Your task to perform on an android device: toggle sleep mode Image 0: 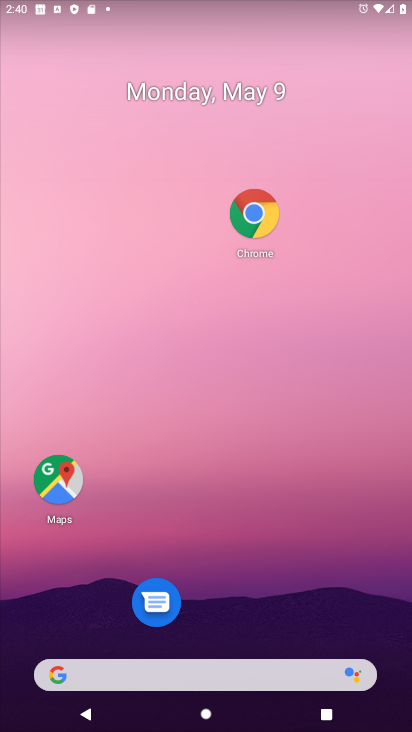
Step 0: drag from (259, 581) to (316, 201)
Your task to perform on an android device: toggle sleep mode Image 1: 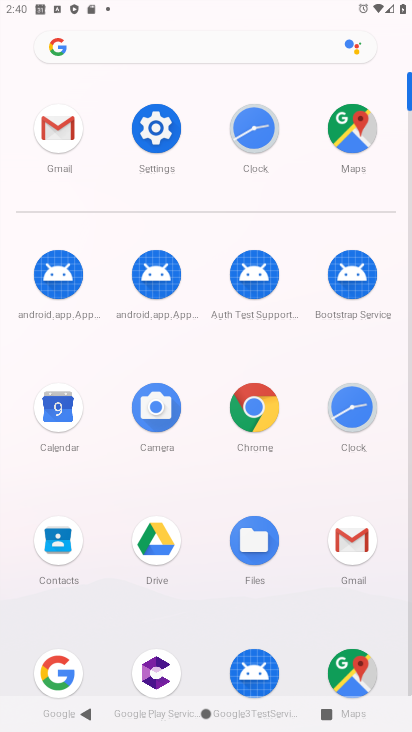
Step 1: click (166, 142)
Your task to perform on an android device: toggle sleep mode Image 2: 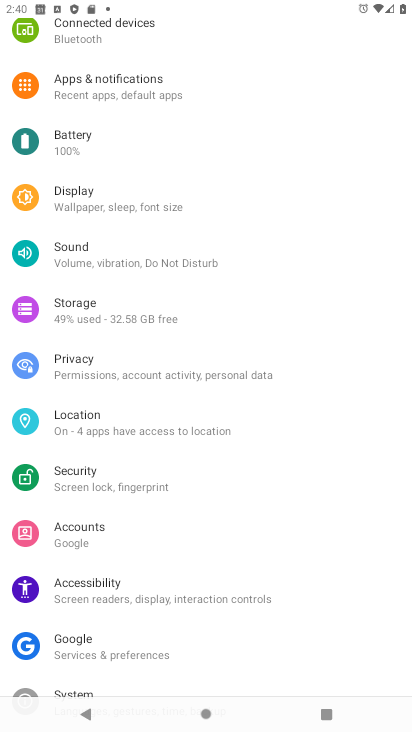
Step 2: click (185, 187)
Your task to perform on an android device: toggle sleep mode Image 3: 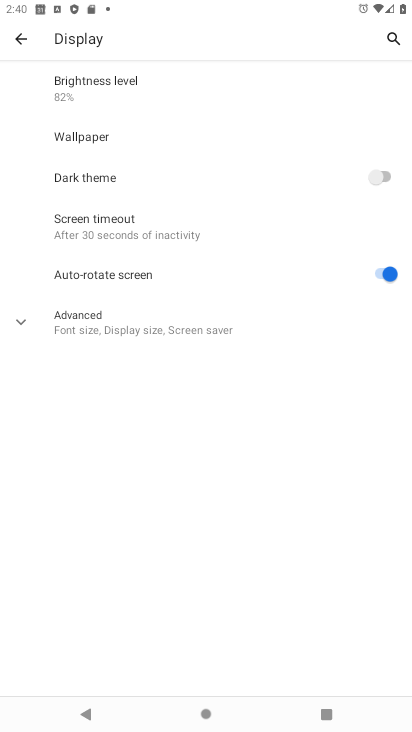
Step 3: click (187, 229)
Your task to perform on an android device: toggle sleep mode Image 4: 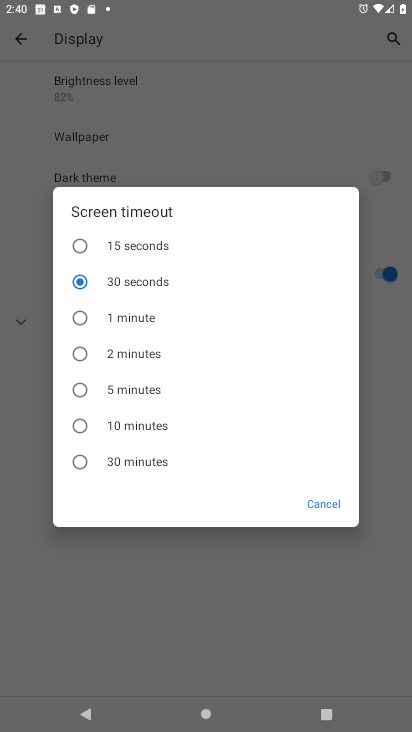
Step 4: click (173, 246)
Your task to perform on an android device: toggle sleep mode Image 5: 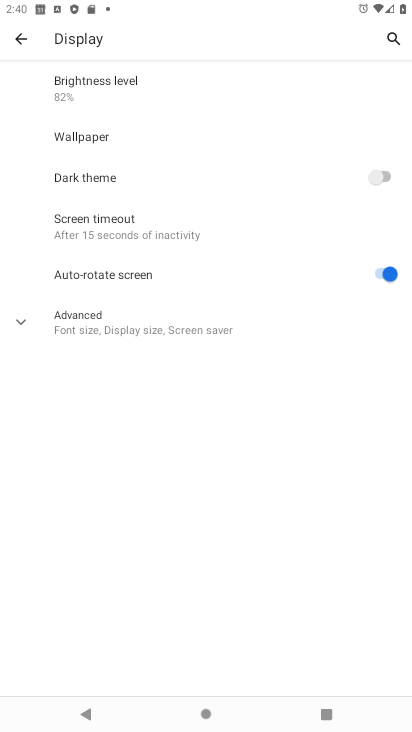
Step 5: task complete